Your task to perform on an android device: add a contact in the contacts app Image 0: 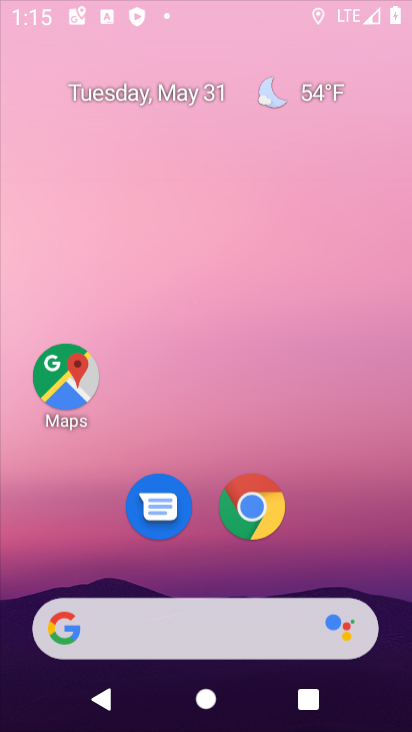
Step 0: drag from (388, 629) to (297, 54)
Your task to perform on an android device: add a contact in the contacts app Image 1: 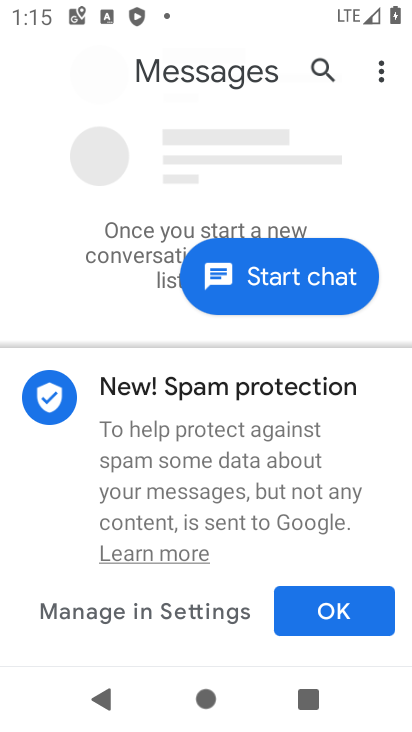
Step 1: press home button
Your task to perform on an android device: add a contact in the contacts app Image 2: 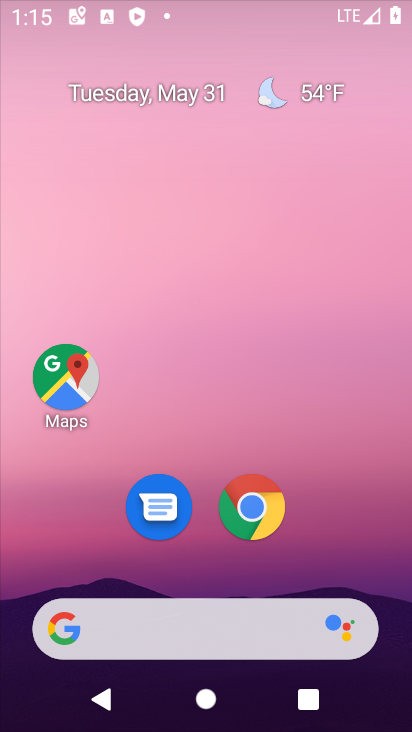
Step 2: drag from (401, 654) to (265, 58)
Your task to perform on an android device: add a contact in the contacts app Image 3: 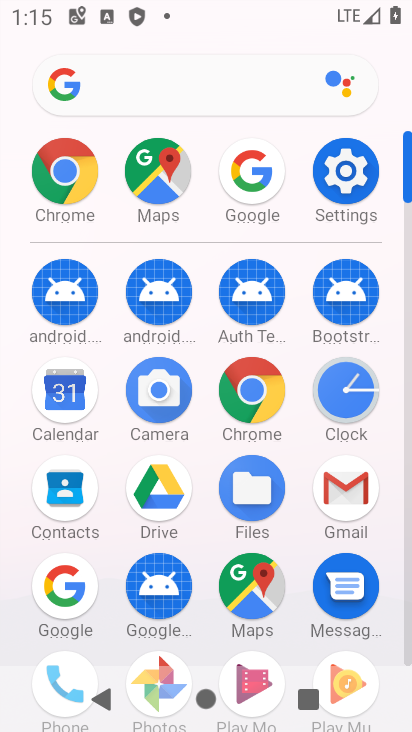
Step 3: click (68, 487)
Your task to perform on an android device: add a contact in the contacts app Image 4: 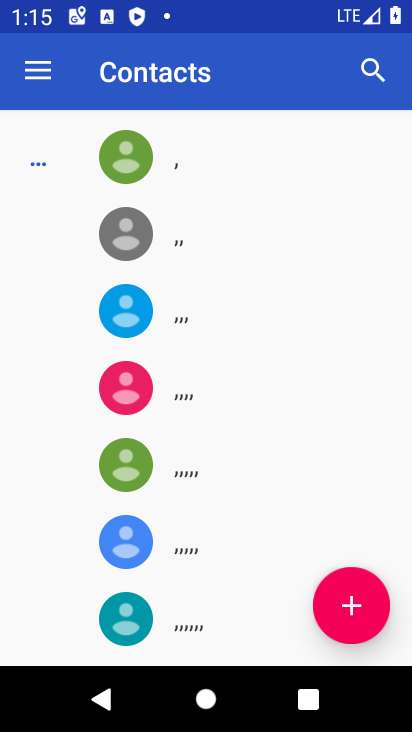
Step 4: click (334, 605)
Your task to perform on an android device: add a contact in the contacts app Image 5: 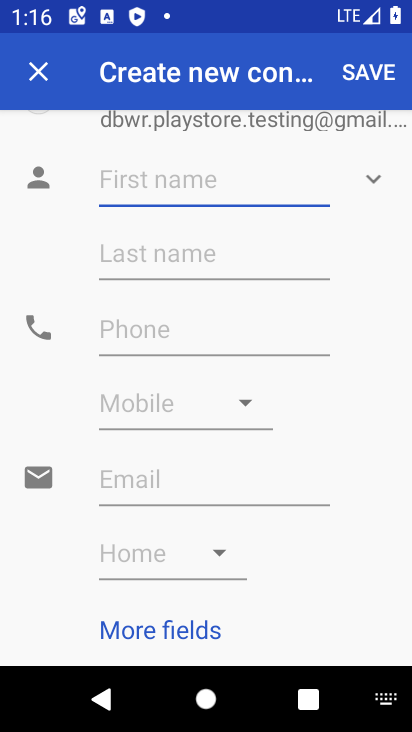
Step 5: type "sangeeta"
Your task to perform on an android device: add a contact in the contacts app Image 6: 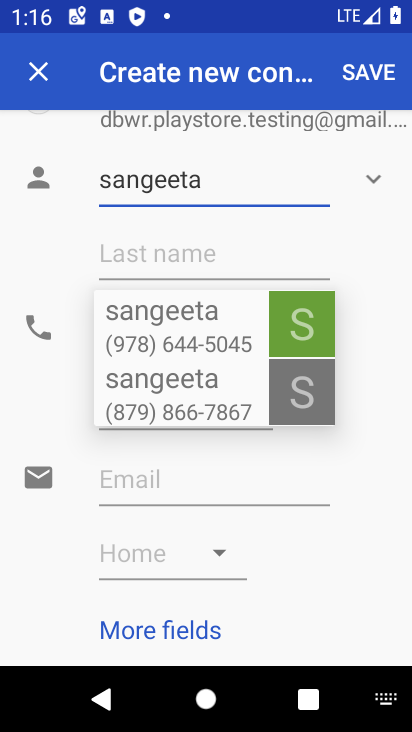
Step 6: click (375, 72)
Your task to perform on an android device: add a contact in the contacts app Image 7: 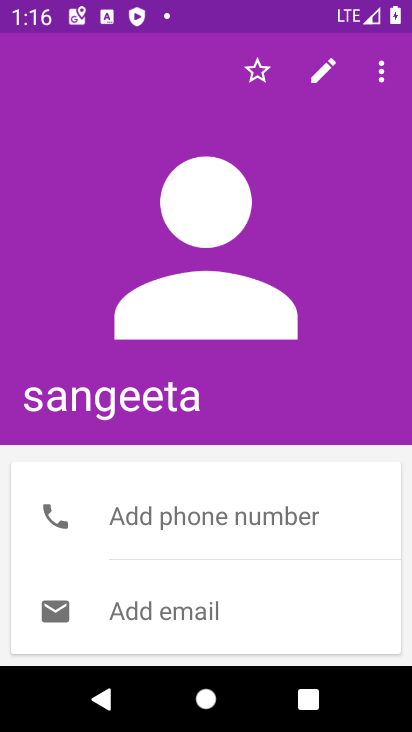
Step 7: task complete